Your task to perform on an android device: Check the news Image 0: 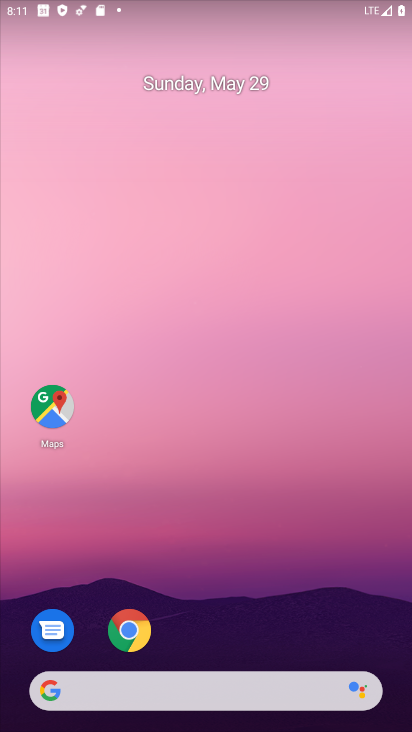
Step 0: click (258, 685)
Your task to perform on an android device: Check the news Image 1: 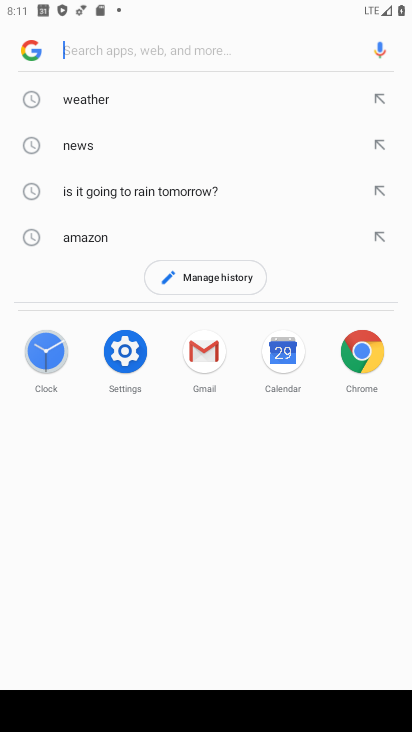
Step 1: click (71, 154)
Your task to perform on an android device: Check the news Image 2: 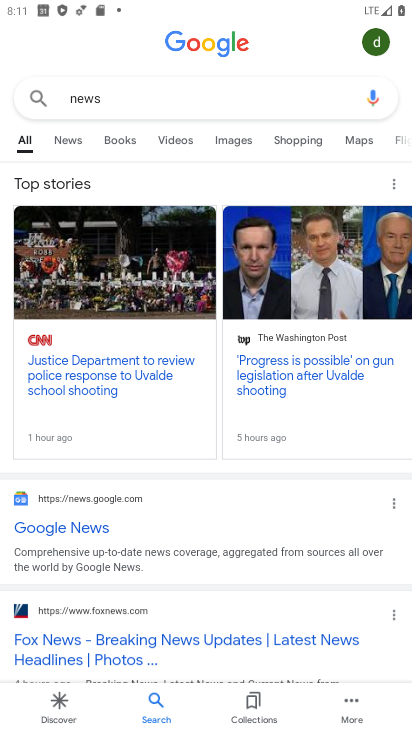
Step 2: click (67, 145)
Your task to perform on an android device: Check the news Image 3: 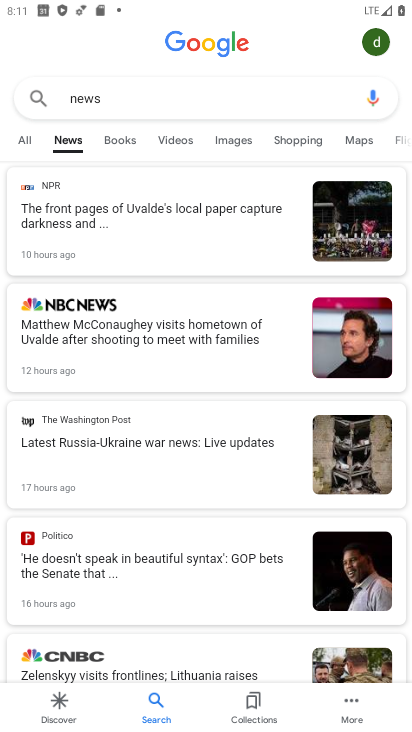
Step 3: task complete